Your task to perform on an android device: Show me recent news Image 0: 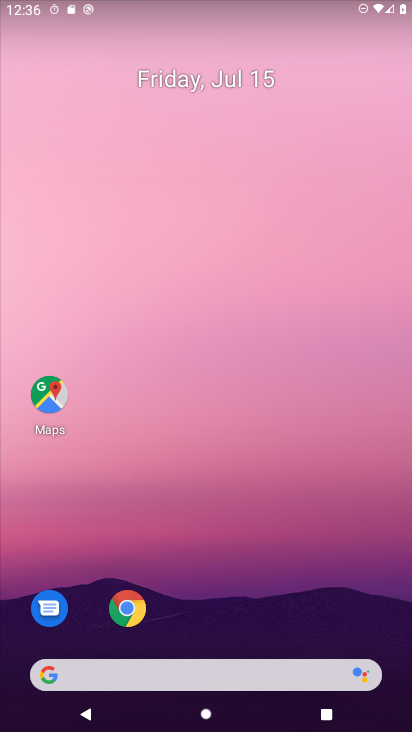
Step 0: drag from (317, 661) to (293, 0)
Your task to perform on an android device: Show me recent news Image 1: 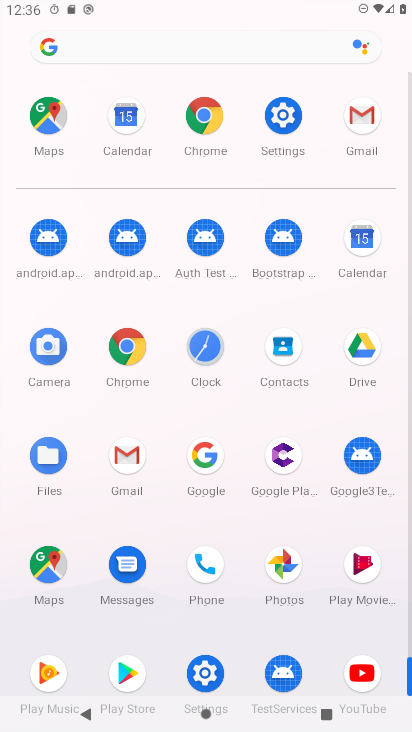
Step 1: click (110, 337)
Your task to perform on an android device: Show me recent news Image 2: 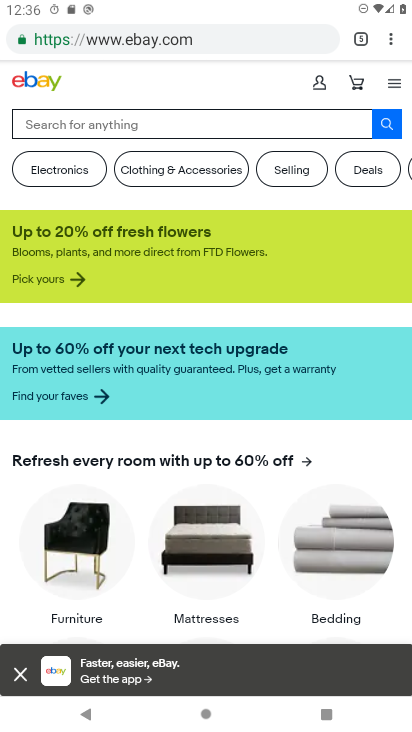
Step 2: click (201, 49)
Your task to perform on an android device: Show me recent news Image 3: 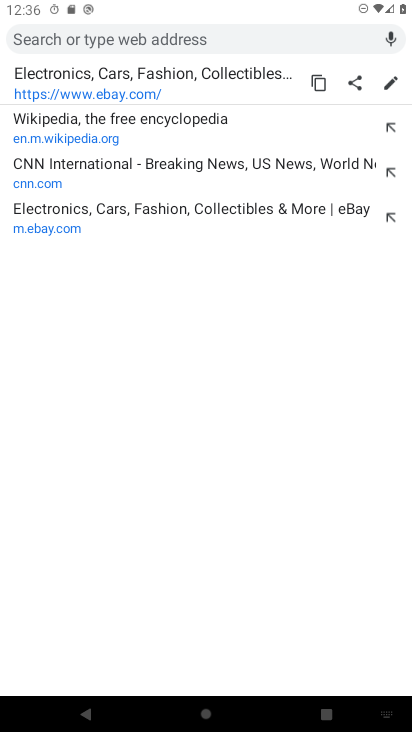
Step 3: type "recent news"
Your task to perform on an android device: Show me recent news Image 4: 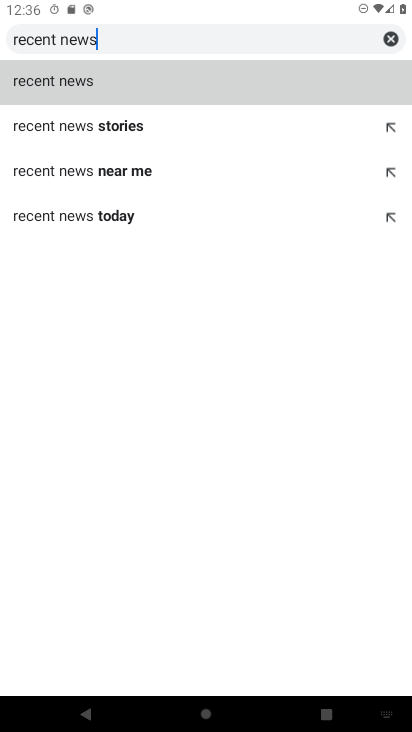
Step 4: click (24, 83)
Your task to perform on an android device: Show me recent news Image 5: 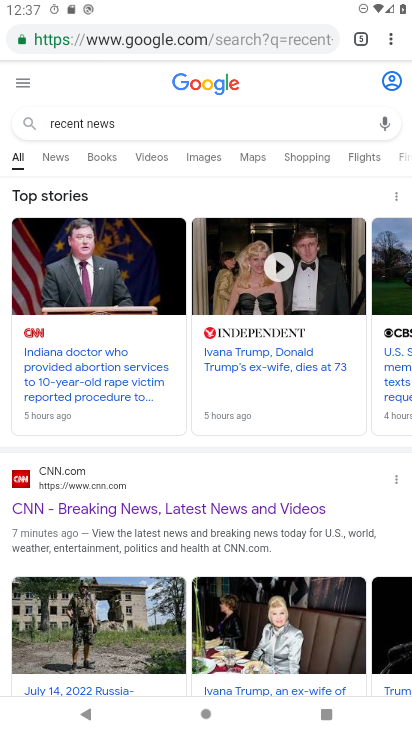
Step 5: task complete